Your task to perform on an android device: turn off translation in the chrome app Image 0: 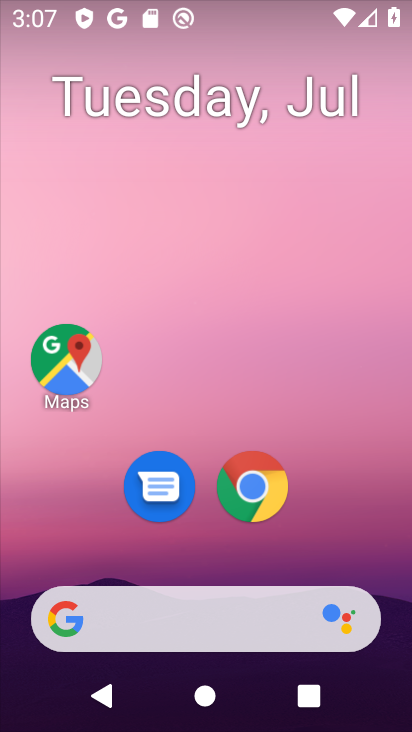
Step 0: click (241, 481)
Your task to perform on an android device: turn off translation in the chrome app Image 1: 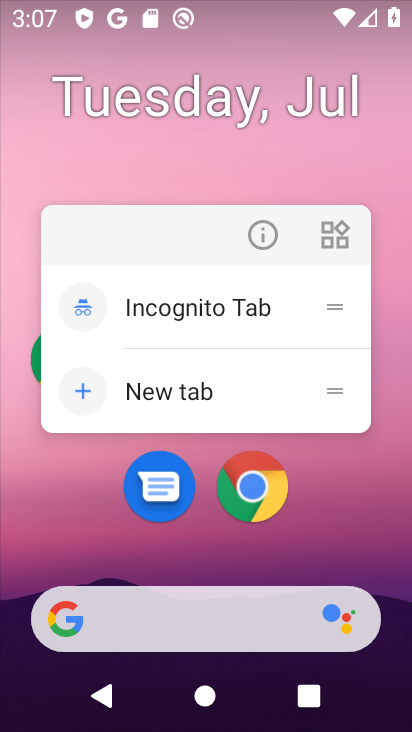
Step 1: click (263, 498)
Your task to perform on an android device: turn off translation in the chrome app Image 2: 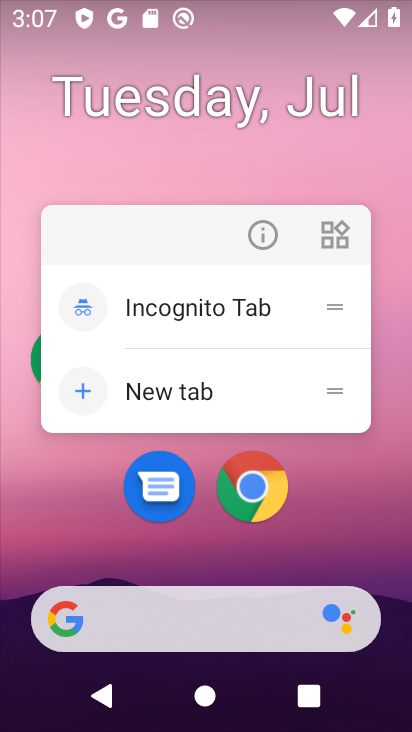
Step 2: click (248, 490)
Your task to perform on an android device: turn off translation in the chrome app Image 3: 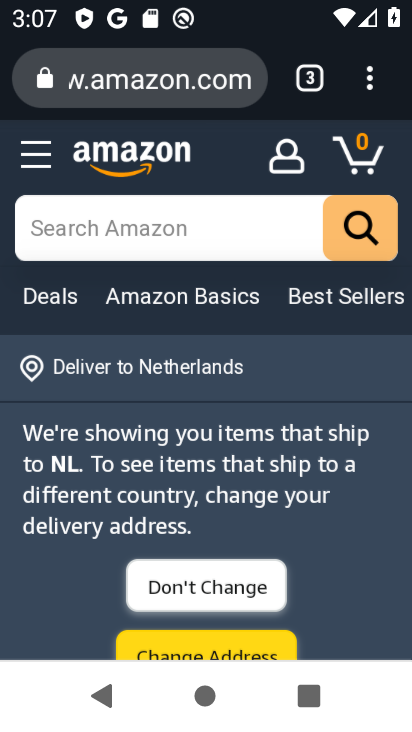
Step 3: drag from (359, 77) to (121, 536)
Your task to perform on an android device: turn off translation in the chrome app Image 4: 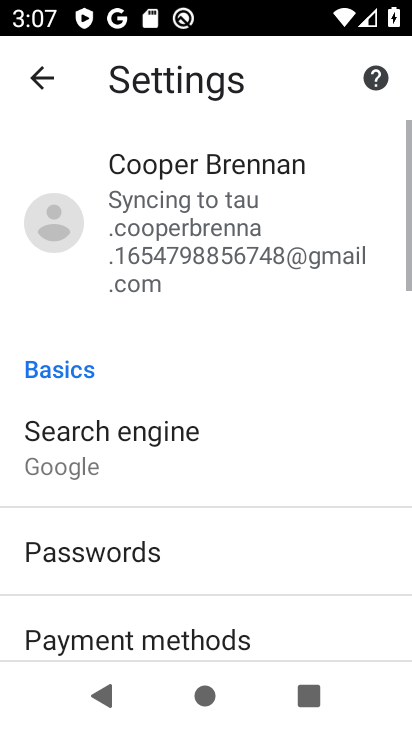
Step 4: drag from (156, 567) to (320, 13)
Your task to perform on an android device: turn off translation in the chrome app Image 5: 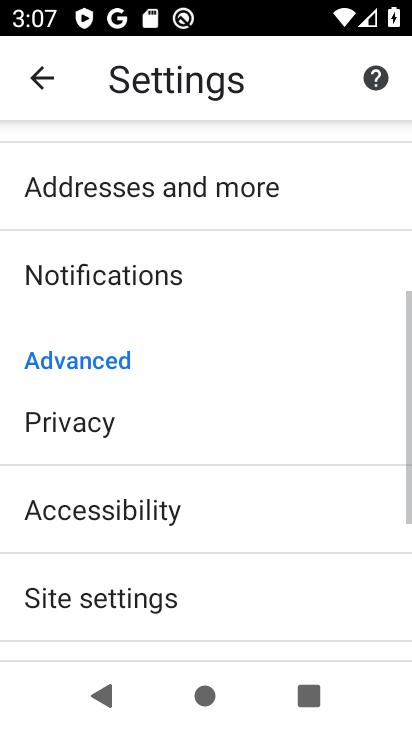
Step 5: drag from (155, 602) to (246, 115)
Your task to perform on an android device: turn off translation in the chrome app Image 6: 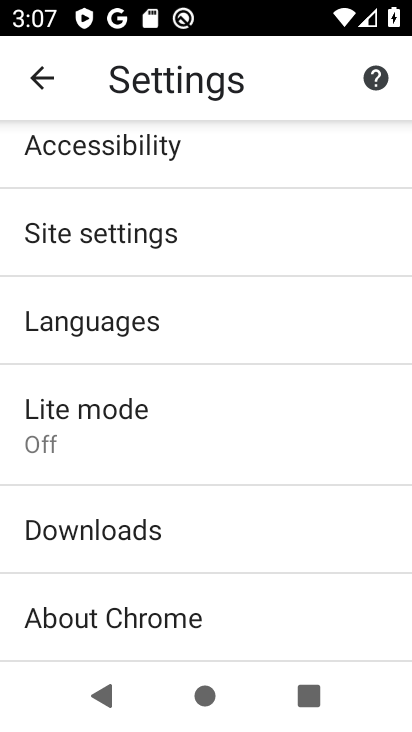
Step 6: click (185, 324)
Your task to perform on an android device: turn off translation in the chrome app Image 7: 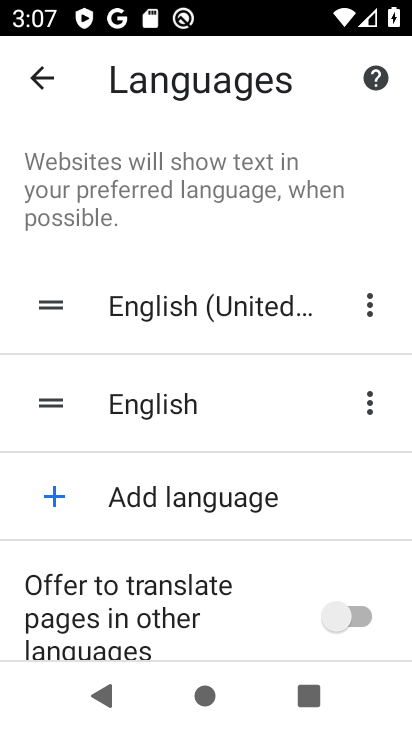
Step 7: task complete